Your task to perform on an android device: turn off notifications in google photos Image 0: 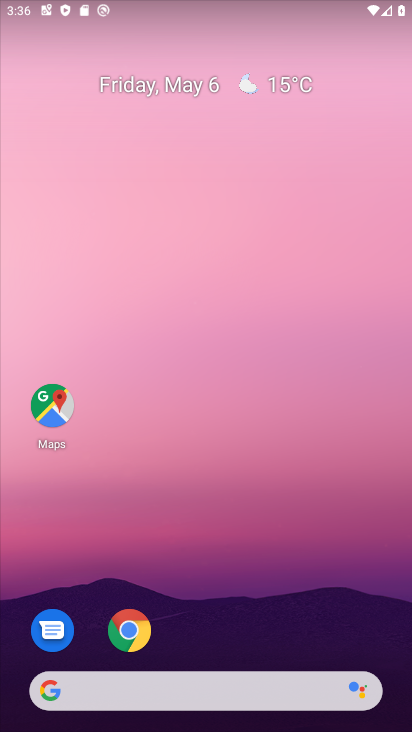
Step 0: drag from (197, 641) to (283, 99)
Your task to perform on an android device: turn off notifications in google photos Image 1: 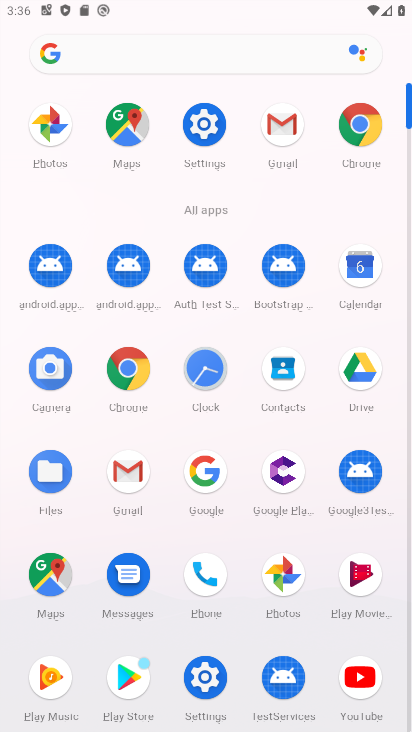
Step 1: click (53, 136)
Your task to perform on an android device: turn off notifications in google photos Image 2: 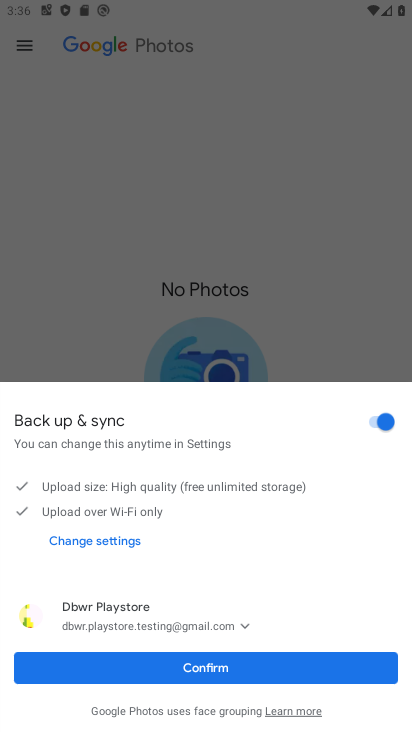
Step 2: click (109, 657)
Your task to perform on an android device: turn off notifications in google photos Image 3: 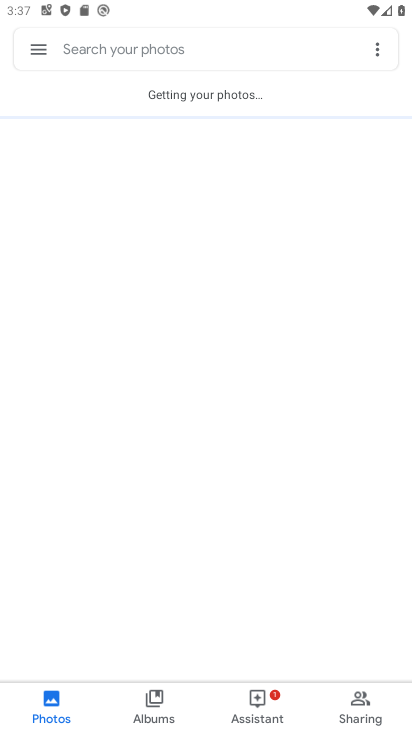
Step 3: click (45, 47)
Your task to perform on an android device: turn off notifications in google photos Image 4: 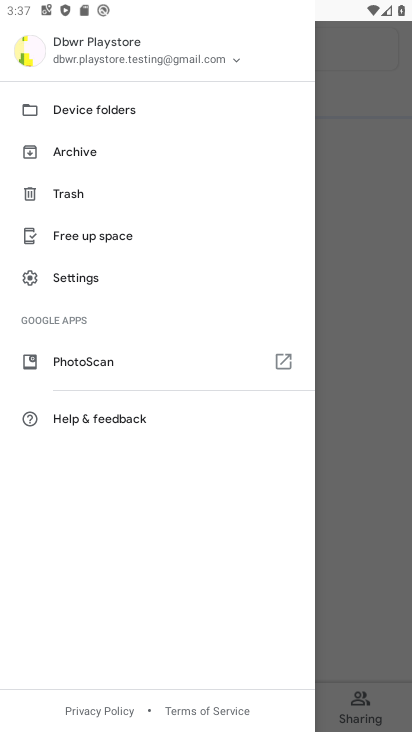
Step 4: click (135, 280)
Your task to perform on an android device: turn off notifications in google photos Image 5: 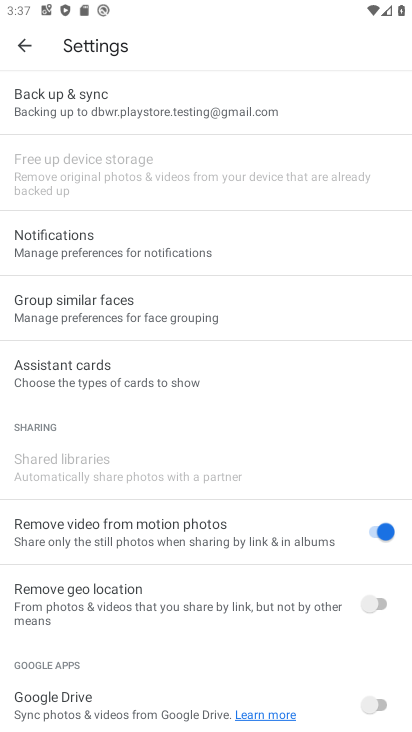
Step 5: click (182, 257)
Your task to perform on an android device: turn off notifications in google photos Image 6: 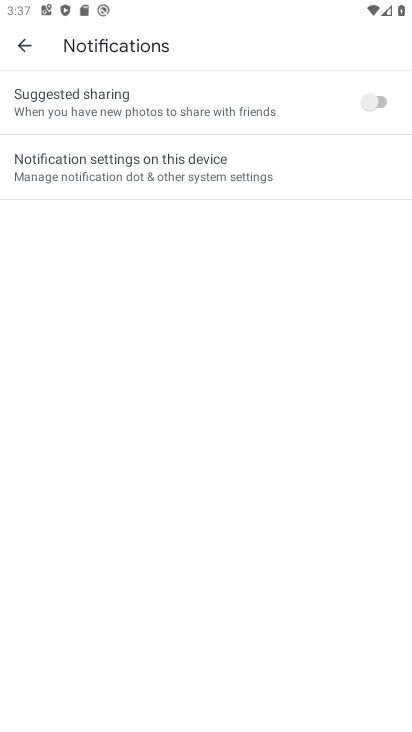
Step 6: click (168, 174)
Your task to perform on an android device: turn off notifications in google photos Image 7: 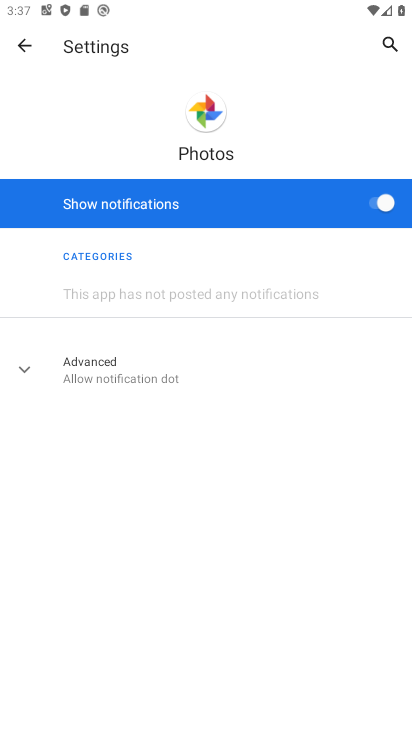
Step 7: click (367, 196)
Your task to perform on an android device: turn off notifications in google photos Image 8: 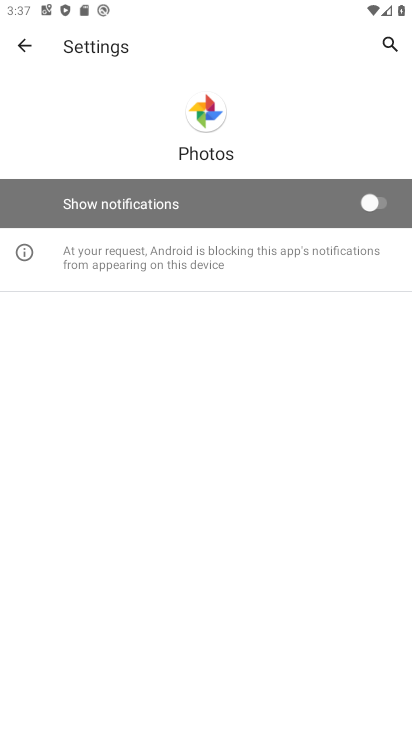
Step 8: task complete